Your task to perform on an android device: Open Google Chrome and click the shortcut for Amazon.com Image 0: 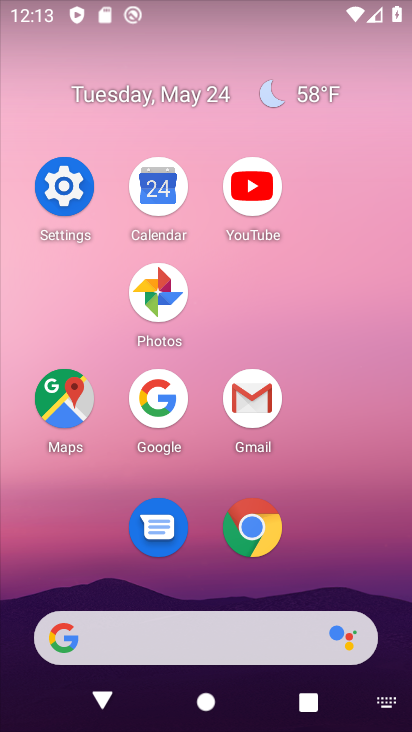
Step 0: click (221, 521)
Your task to perform on an android device: Open Google Chrome and click the shortcut for Amazon.com Image 1: 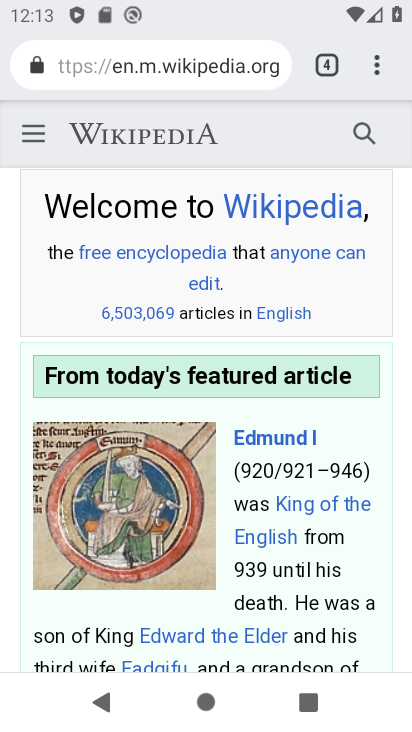
Step 1: click (313, 57)
Your task to perform on an android device: Open Google Chrome and click the shortcut for Amazon.com Image 2: 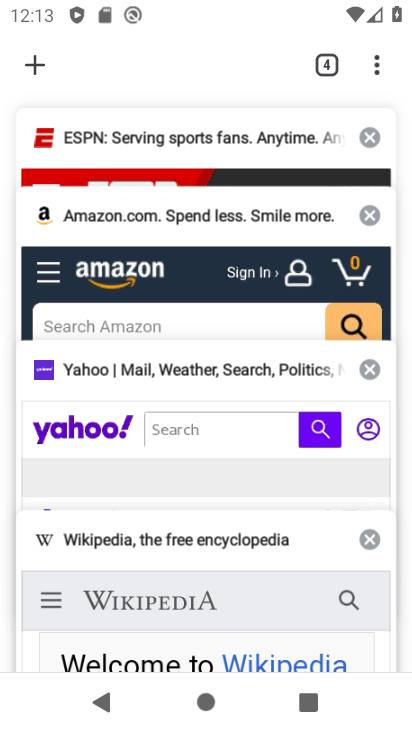
Step 2: click (70, 218)
Your task to perform on an android device: Open Google Chrome and click the shortcut for Amazon.com Image 3: 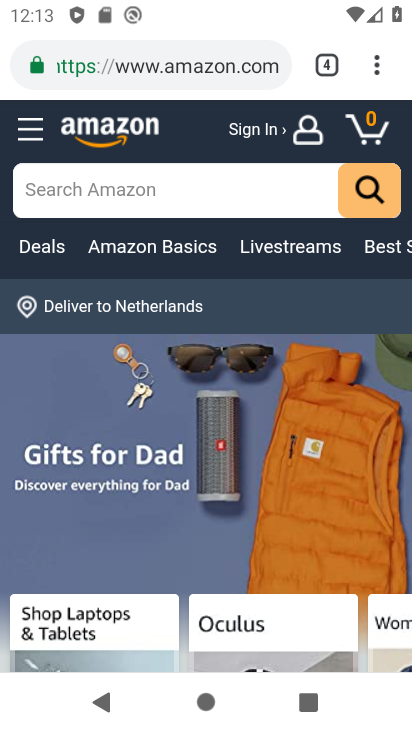
Step 3: click (376, 63)
Your task to perform on an android device: Open Google Chrome and click the shortcut for Amazon.com Image 4: 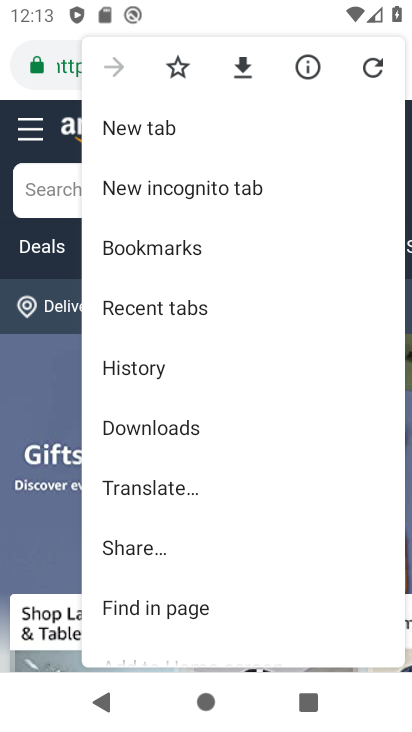
Step 4: drag from (217, 506) to (246, 170)
Your task to perform on an android device: Open Google Chrome and click the shortcut for Amazon.com Image 5: 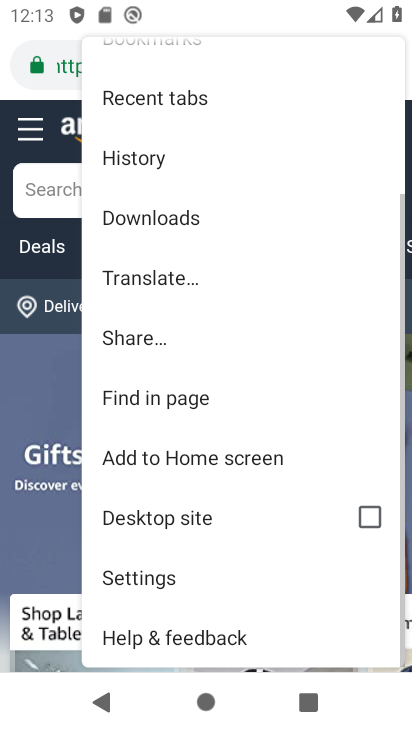
Step 5: click (220, 471)
Your task to perform on an android device: Open Google Chrome and click the shortcut for Amazon.com Image 6: 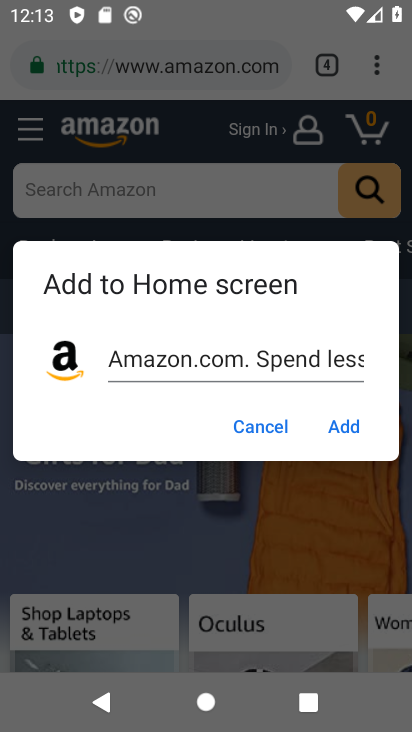
Step 6: click (356, 417)
Your task to perform on an android device: Open Google Chrome and click the shortcut for Amazon.com Image 7: 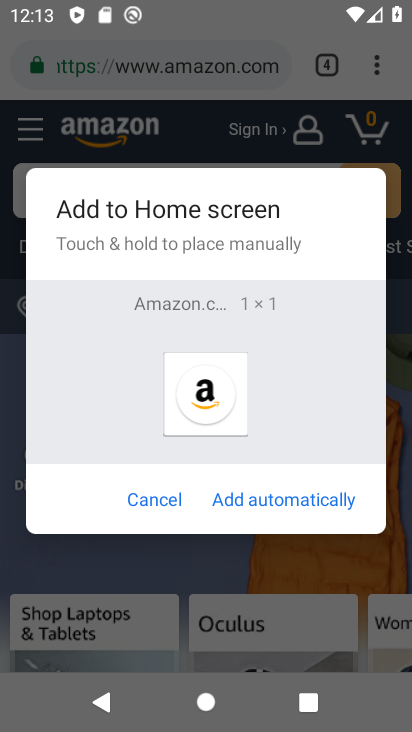
Step 7: click (304, 490)
Your task to perform on an android device: Open Google Chrome and click the shortcut for Amazon.com Image 8: 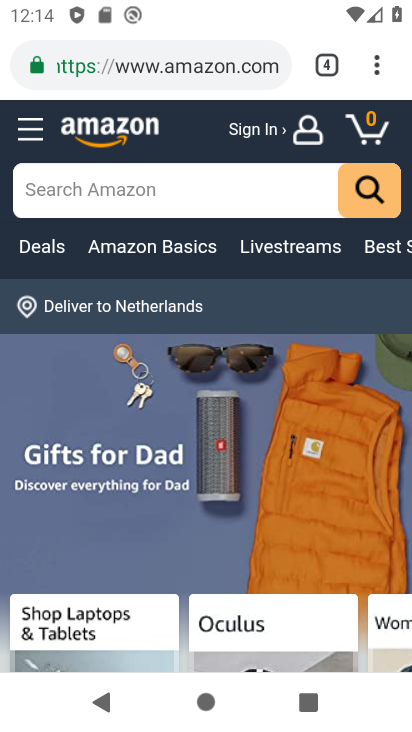
Step 8: task complete